Your task to perform on an android device: Open ESPN.com Image 0: 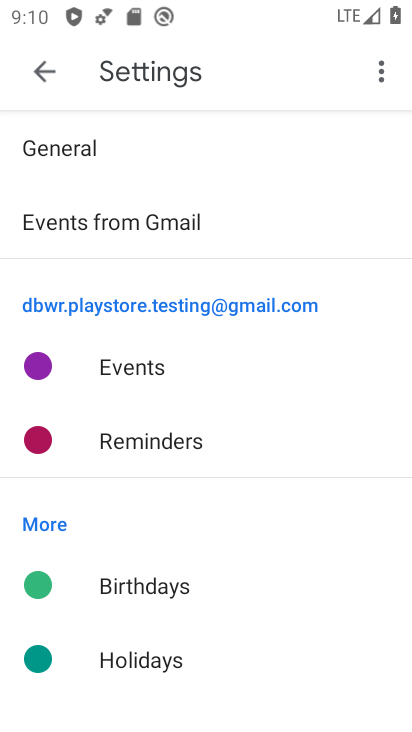
Step 0: press home button
Your task to perform on an android device: Open ESPN.com Image 1: 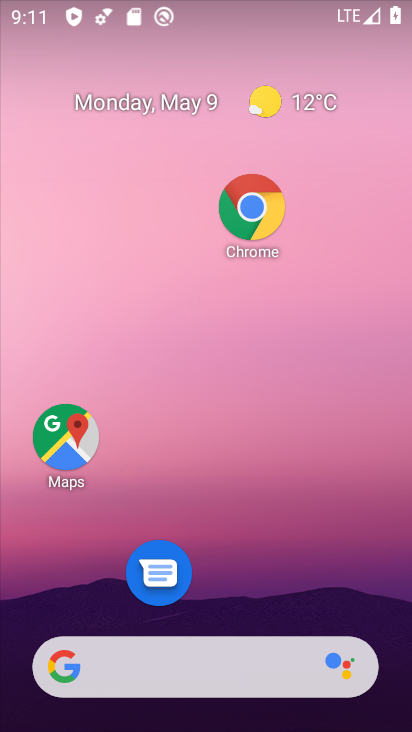
Step 1: drag from (305, 610) to (243, 301)
Your task to perform on an android device: Open ESPN.com Image 2: 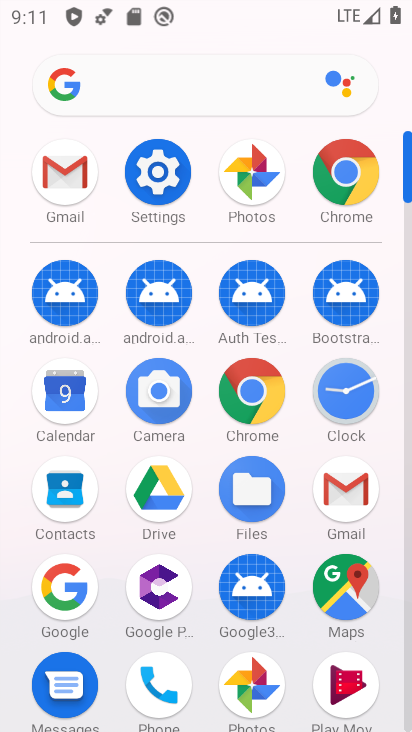
Step 2: click (330, 196)
Your task to perform on an android device: Open ESPN.com Image 3: 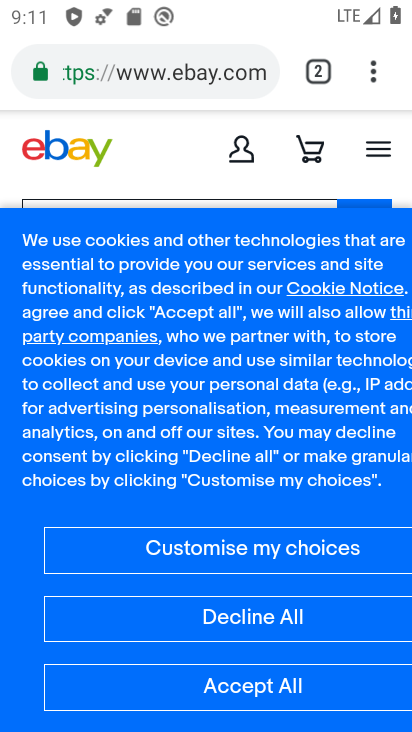
Step 3: click (234, 66)
Your task to perform on an android device: Open ESPN.com Image 4: 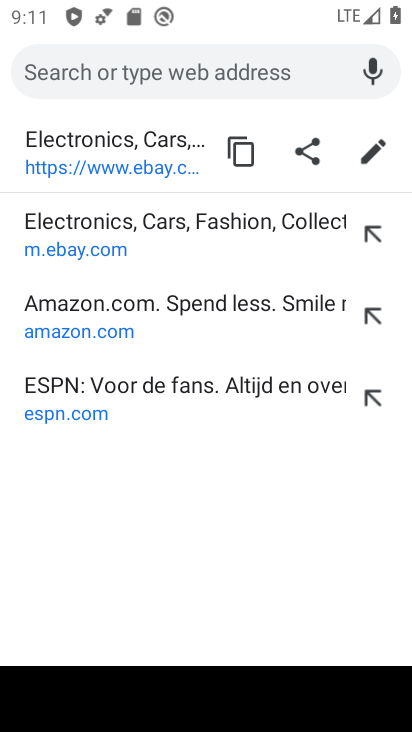
Step 4: click (208, 419)
Your task to perform on an android device: Open ESPN.com Image 5: 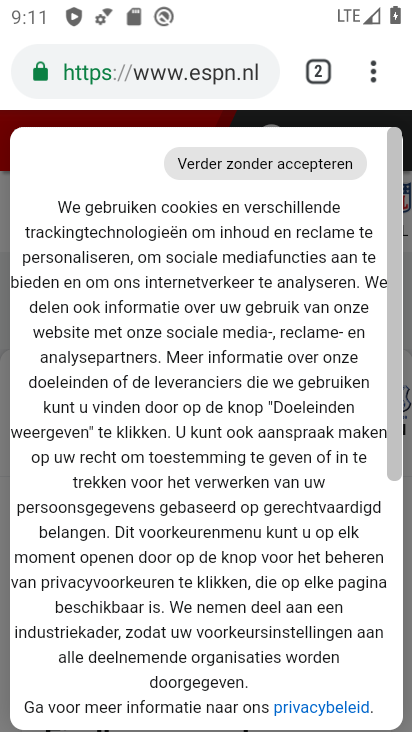
Step 5: task complete